Your task to perform on an android device: see creations saved in the google photos Image 0: 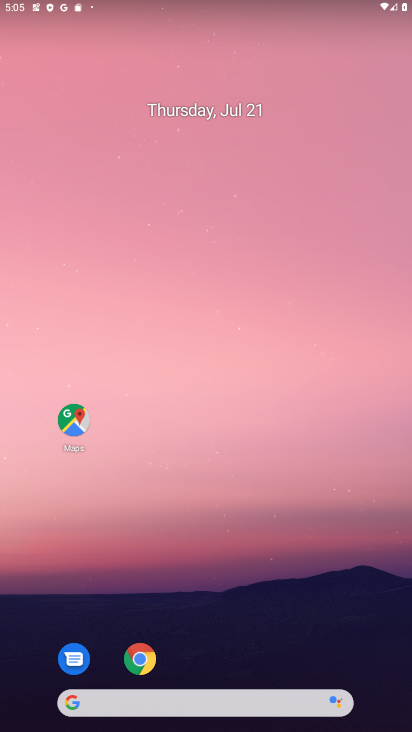
Step 0: drag from (235, 617) to (139, 69)
Your task to perform on an android device: see creations saved in the google photos Image 1: 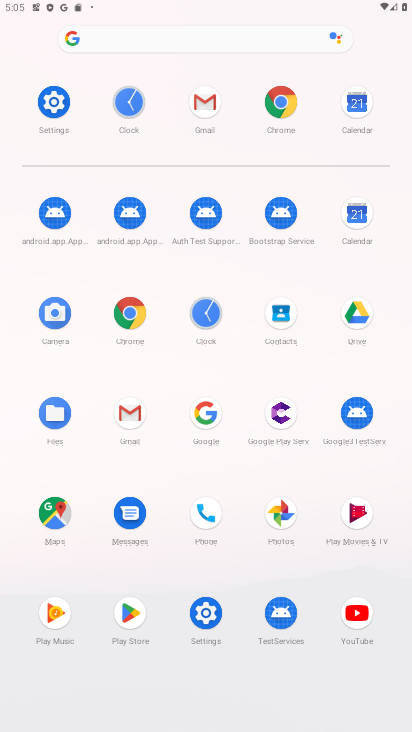
Step 1: click (290, 509)
Your task to perform on an android device: see creations saved in the google photos Image 2: 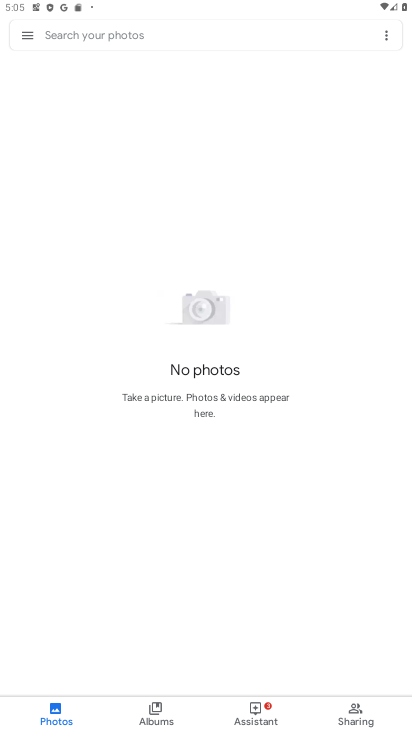
Step 2: click (132, 34)
Your task to perform on an android device: see creations saved in the google photos Image 3: 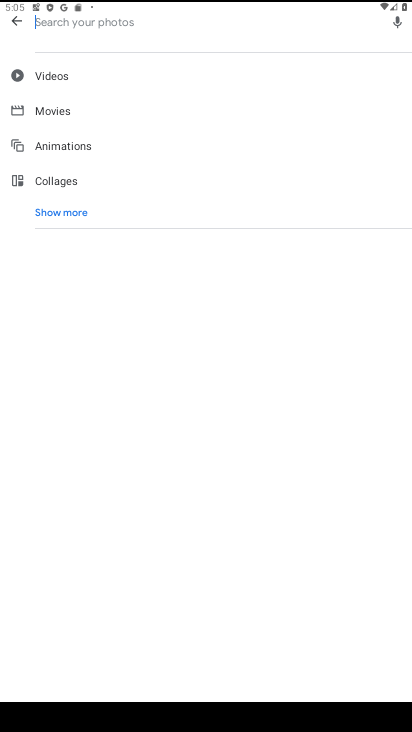
Step 3: click (47, 211)
Your task to perform on an android device: see creations saved in the google photos Image 4: 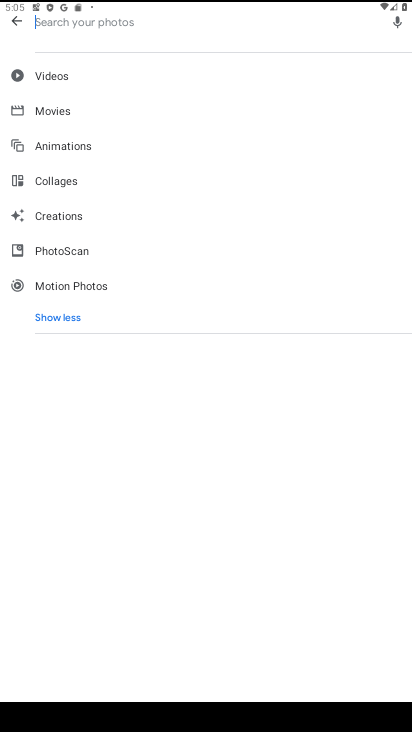
Step 4: click (35, 207)
Your task to perform on an android device: see creations saved in the google photos Image 5: 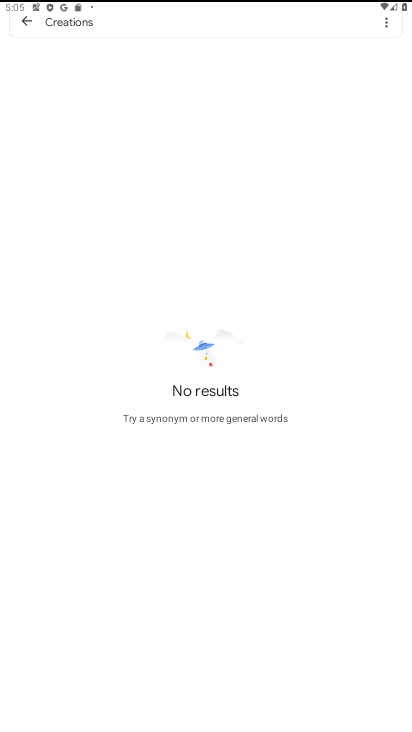
Step 5: task complete